Your task to perform on an android device: toggle wifi Image 0: 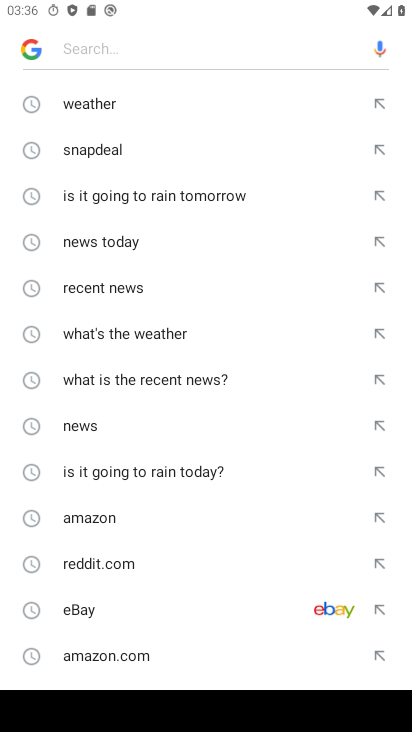
Step 0: press home button
Your task to perform on an android device: toggle wifi Image 1: 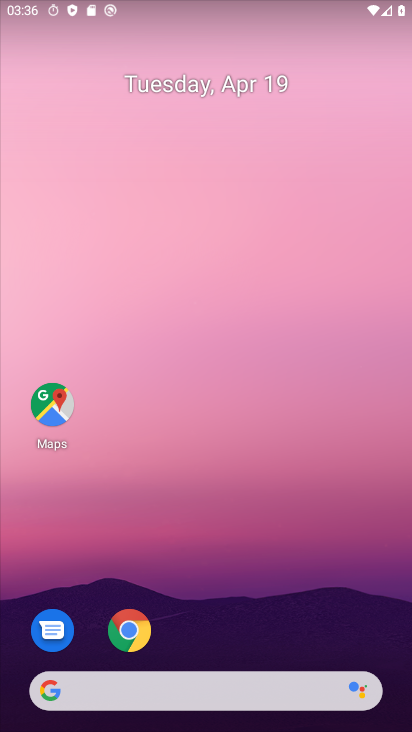
Step 1: drag from (196, 638) to (212, 97)
Your task to perform on an android device: toggle wifi Image 2: 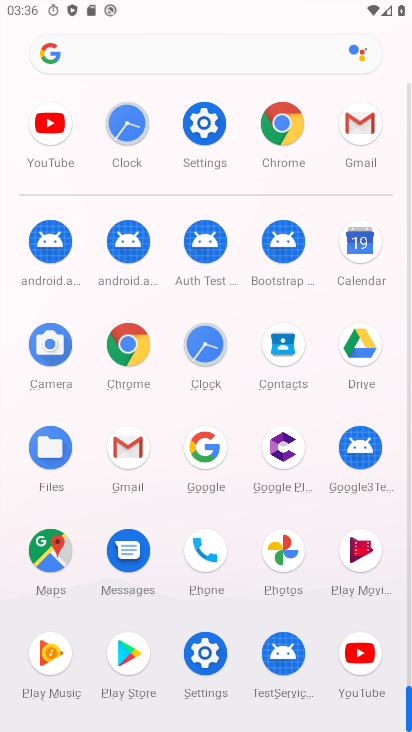
Step 2: click (210, 108)
Your task to perform on an android device: toggle wifi Image 3: 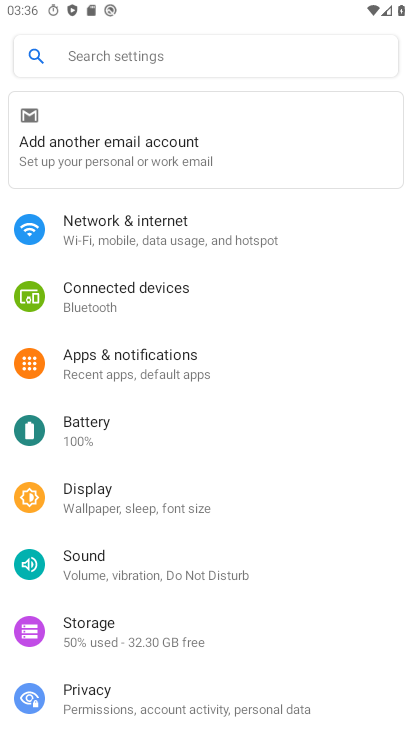
Step 3: click (218, 245)
Your task to perform on an android device: toggle wifi Image 4: 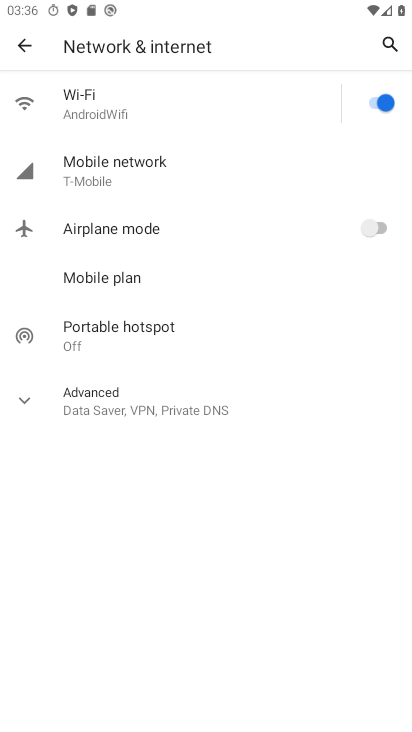
Step 4: click (380, 99)
Your task to perform on an android device: toggle wifi Image 5: 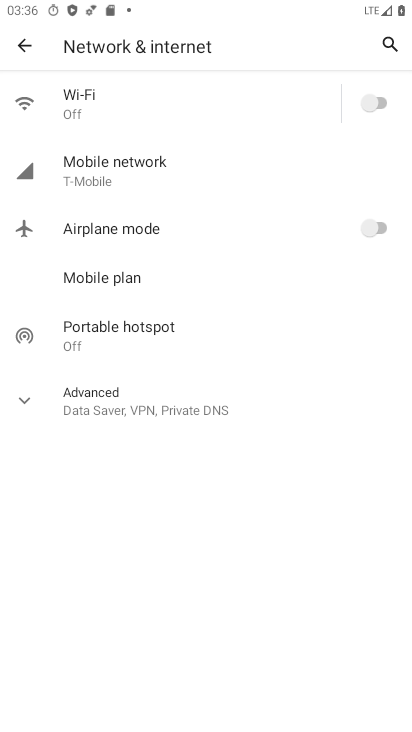
Step 5: task complete